Your task to perform on an android device: Do I have any events tomorrow? Image 0: 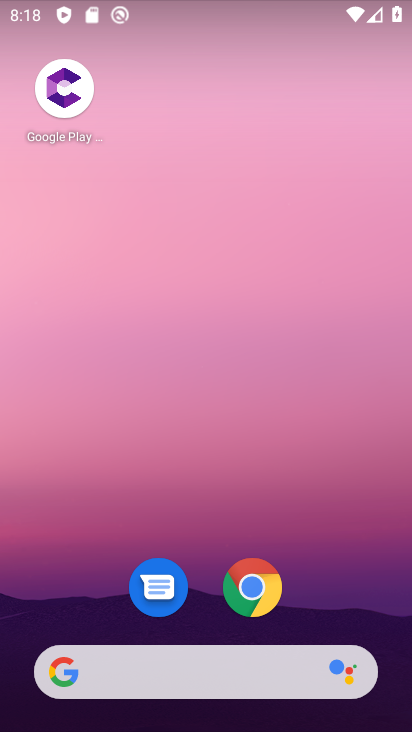
Step 0: drag from (41, 252) to (388, 226)
Your task to perform on an android device: Do I have any events tomorrow? Image 1: 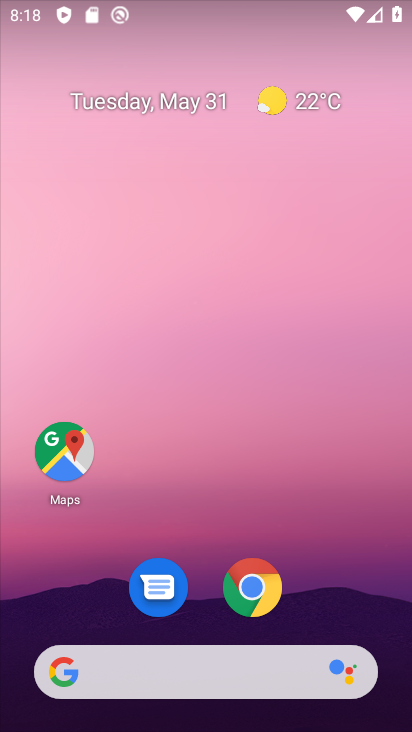
Step 1: click (78, 104)
Your task to perform on an android device: Do I have any events tomorrow? Image 2: 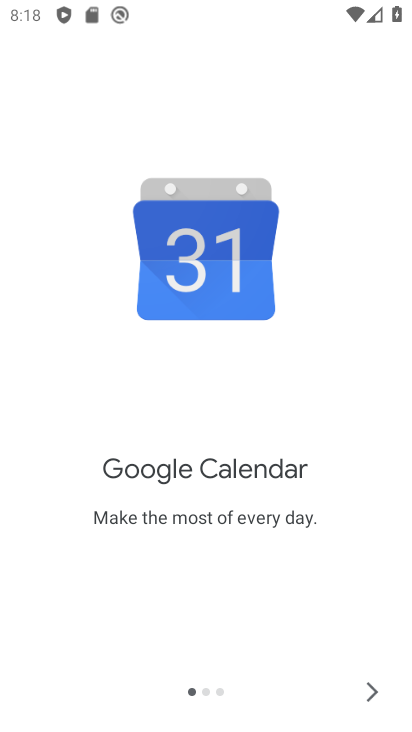
Step 2: click (372, 699)
Your task to perform on an android device: Do I have any events tomorrow? Image 3: 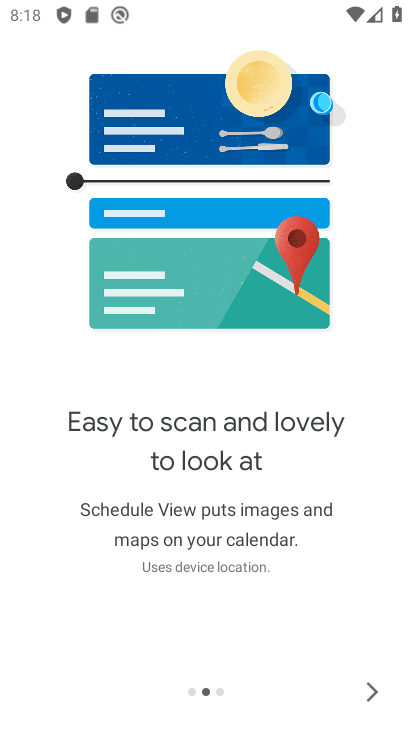
Step 3: click (372, 699)
Your task to perform on an android device: Do I have any events tomorrow? Image 4: 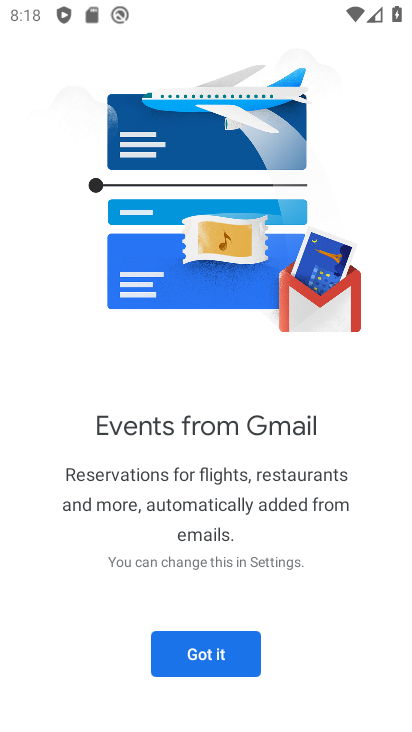
Step 4: click (202, 670)
Your task to perform on an android device: Do I have any events tomorrow? Image 5: 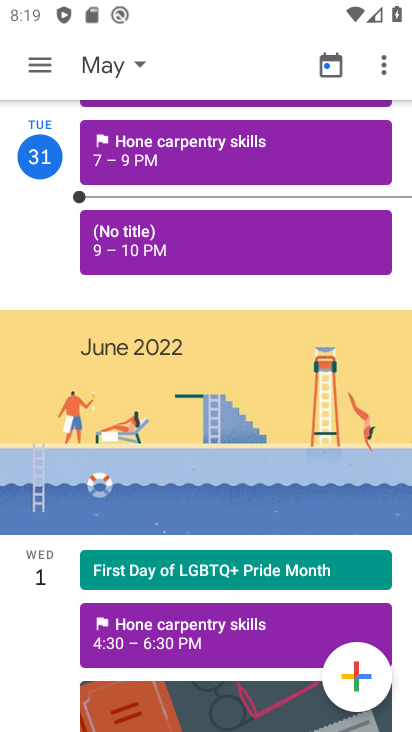
Step 5: click (106, 62)
Your task to perform on an android device: Do I have any events tomorrow? Image 6: 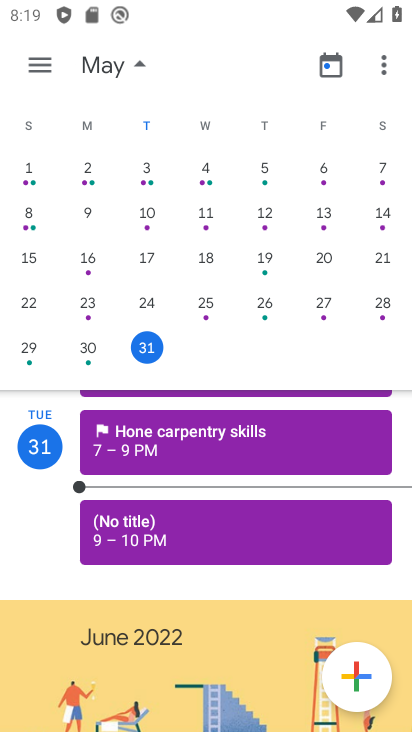
Step 6: task complete